Your task to perform on an android device: Is it going to rain tomorrow? Image 0: 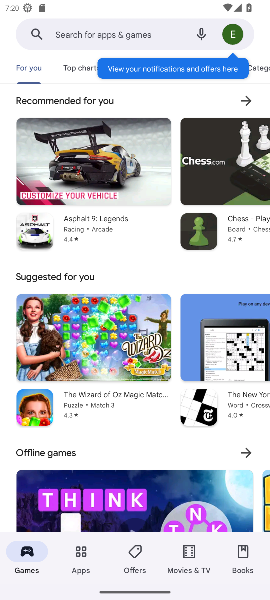
Step 0: press home button
Your task to perform on an android device: Is it going to rain tomorrow? Image 1: 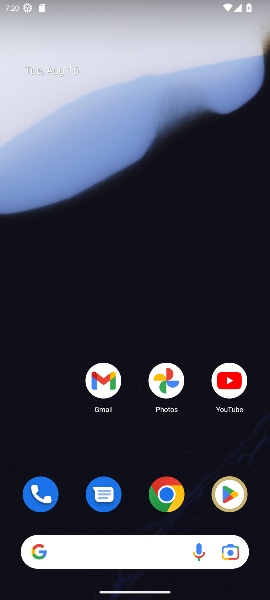
Step 1: click (168, 491)
Your task to perform on an android device: Is it going to rain tomorrow? Image 2: 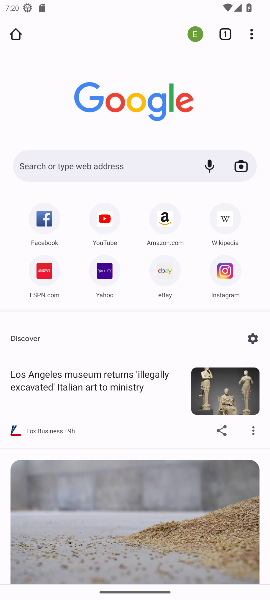
Step 2: click (56, 160)
Your task to perform on an android device: Is it going to rain tomorrow? Image 3: 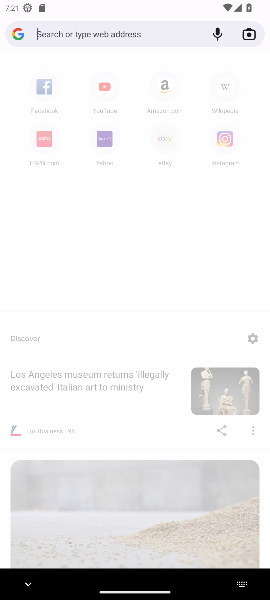
Step 3: click (45, 29)
Your task to perform on an android device: Is it going to rain tomorrow? Image 4: 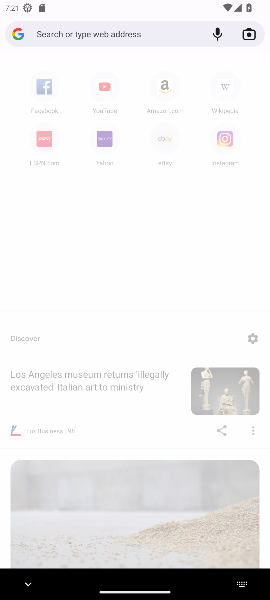
Step 4: click (50, 29)
Your task to perform on an android device: Is it going to rain tomorrow? Image 5: 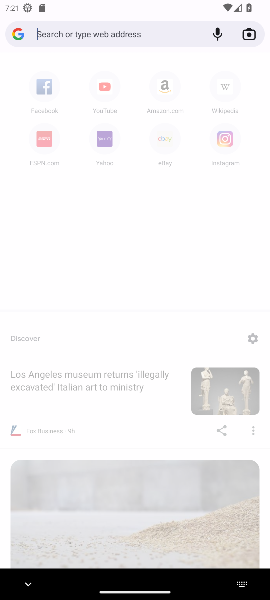
Step 5: type "Is it going to rain tomorrow?"
Your task to perform on an android device: Is it going to rain tomorrow? Image 6: 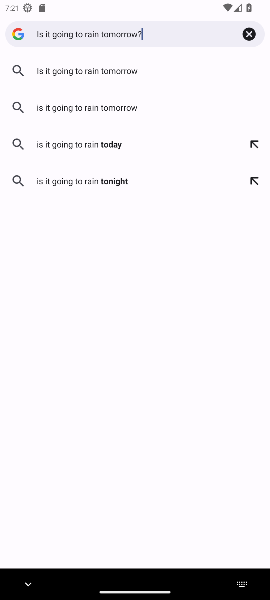
Step 6: press enter
Your task to perform on an android device: Is it going to rain tomorrow? Image 7: 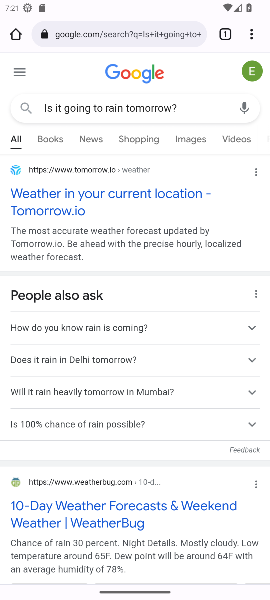
Step 7: task complete